Your task to perform on an android device: see sites visited before in the chrome app Image 0: 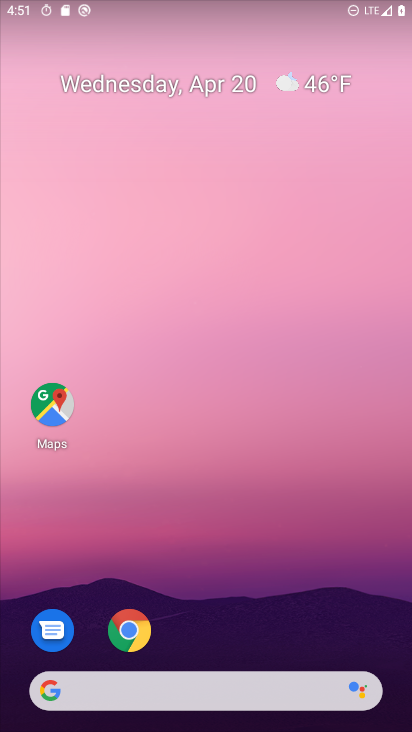
Step 0: drag from (364, 685) to (374, 41)
Your task to perform on an android device: see sites visited before in the chrome app Image 1: 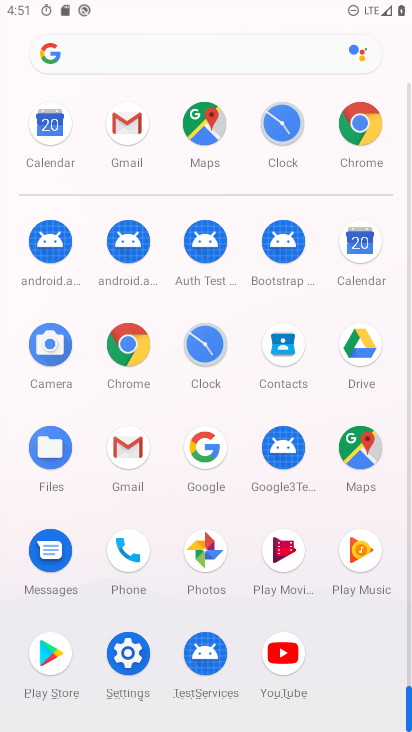
Step 1: click (127, 346)
Your task to perform on an android device: see sites visited before in the chrome app Image 2: 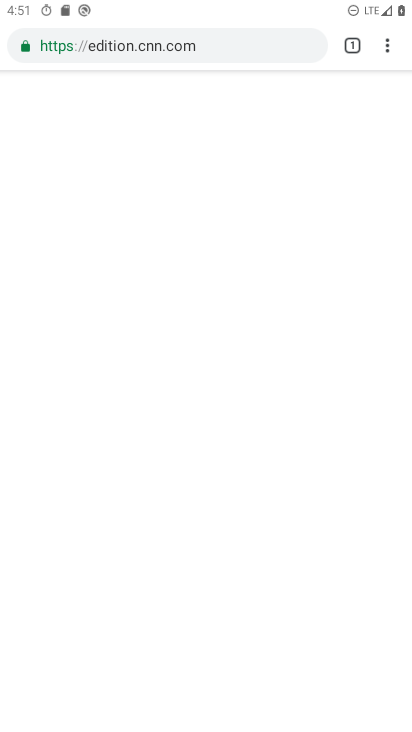
Step 2: click (382, 46)
Your task to perform on an android device: see sites visited before in the chrome app Image 3: 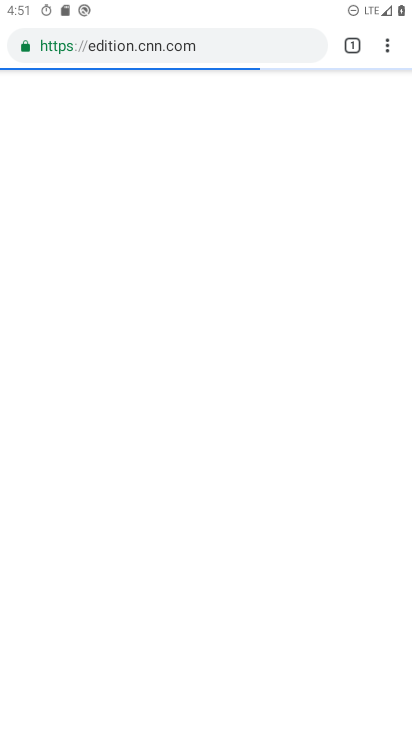
Step 3: task complete